Your task to perform on an android device: Go to accessibility settings Image 0: 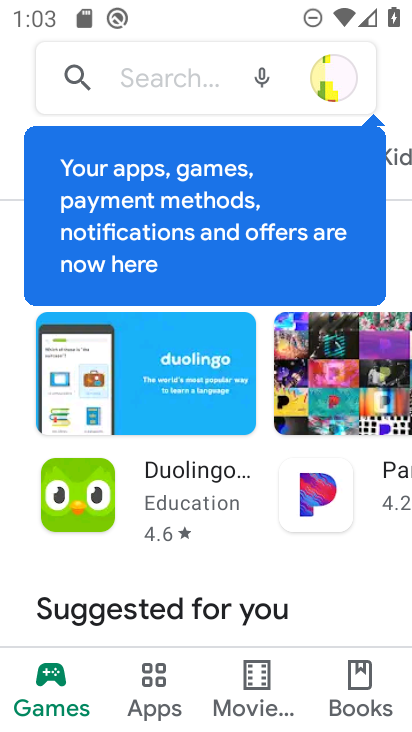
Step 0: drag from (251, 598) to (323, 306)
Your task to perform on an android device: Go to accessibility settings Image 1: 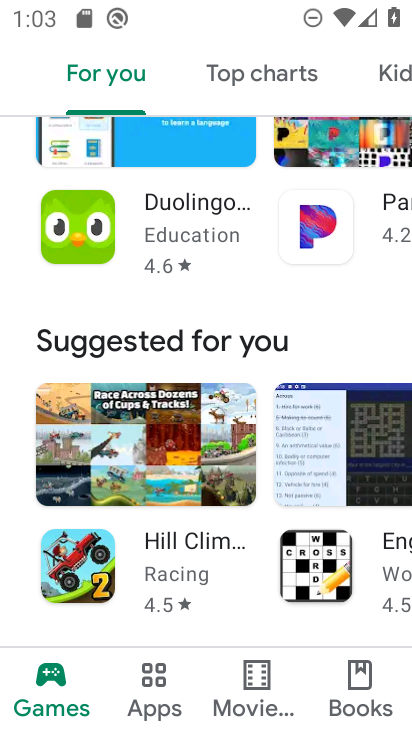
Step 1: drag from (229, 622) to (298, 162)
Your task to perform on an android device: Go to accessibility settings Image 2: 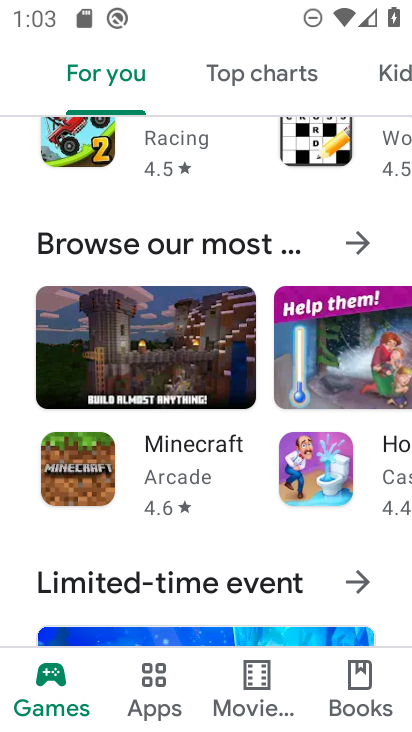
Step 2: press home button
Your task to perform on an android device: Go to accessibility settings Image 3: 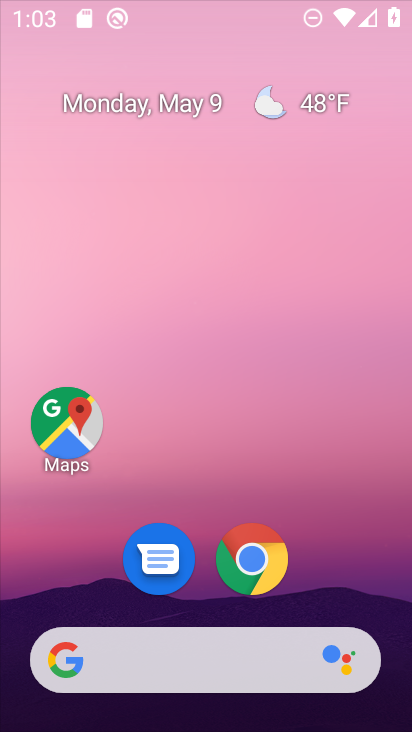
Step 3: drag from (227, 603) to (305, 183)
Your task to perform on an android device: Go to accessibility settings Image 4: 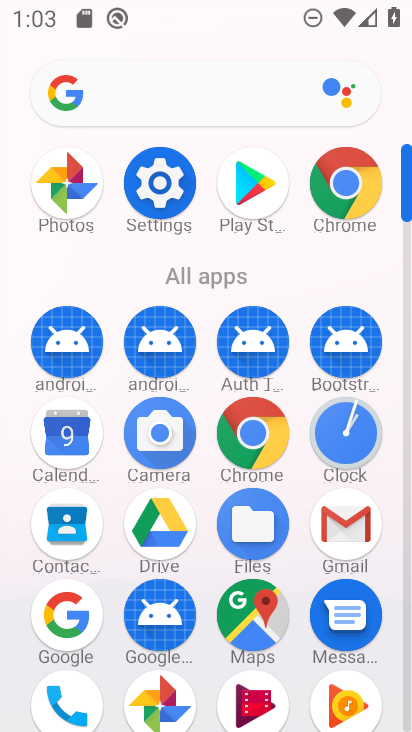
Step 4: click (177, 190)
Your task to perform on an android device: Go to accessibility settings Image 5: 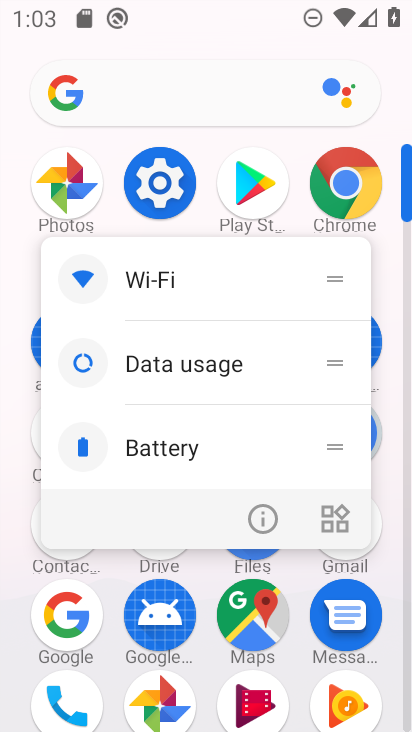
Step 5: click (254, 517)
Your task to perform on an android device: Go to accessibility settings Image 6: 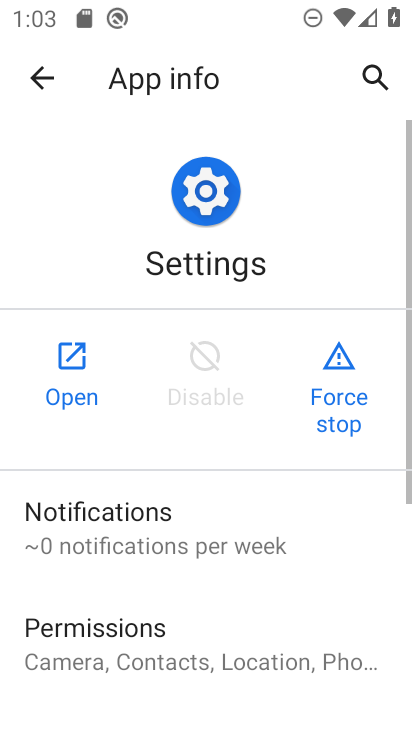
Step 6: click (70, 339)
Your task to perform on an android device: Go to accessibility settings Image 7: 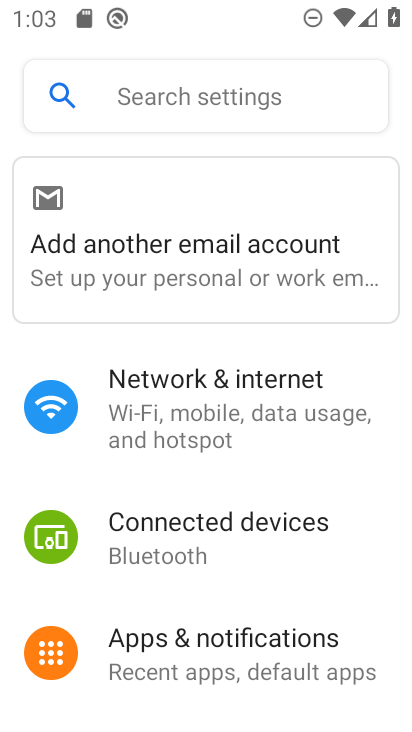
Step 7: drag from (247, 632) to (346, 58)
Your task to perform on an android device: Go to accessibility settings Image 8: 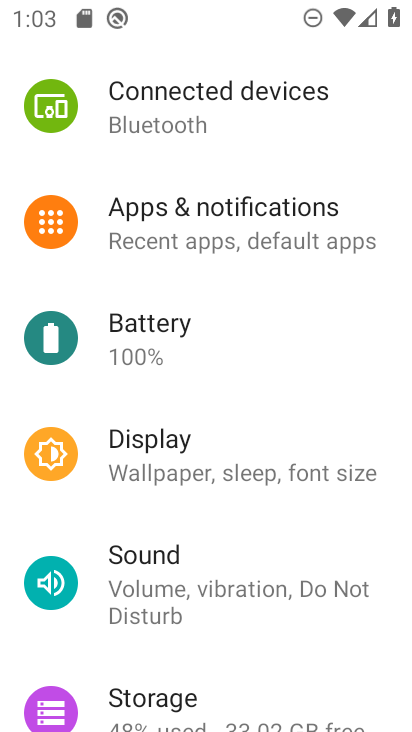
Step 8: drag from (227, 650) to (293, 135)
Your task to perform on an android device: Go to accessibility settings Image 9: 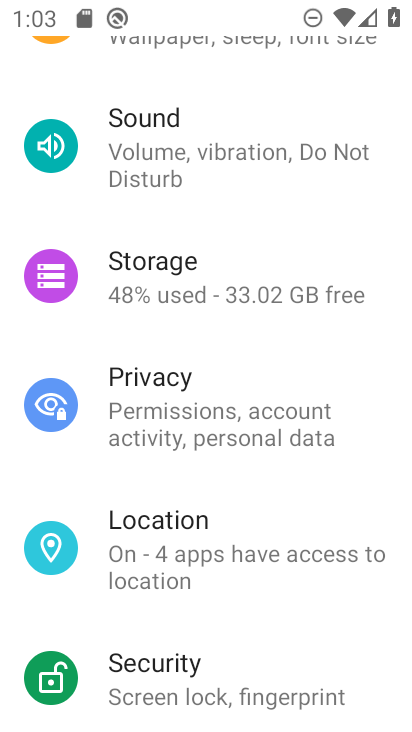
Step 9: drag from (190, 620) to (246, 180)
Your task to perform on an android device: Go to accessibility settings Image 10: 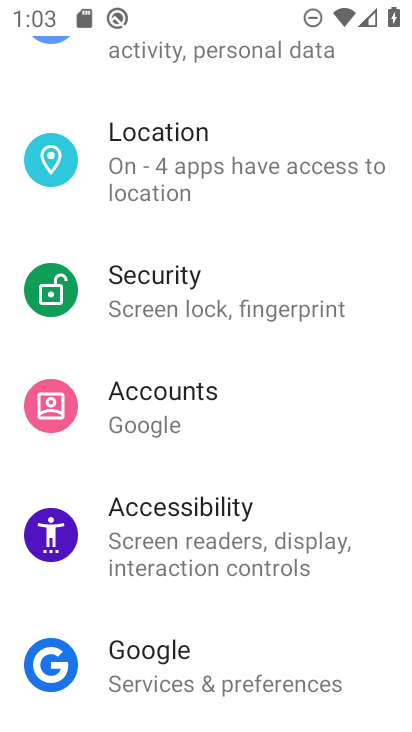
Step 10: drag from (222, 532) to (273, 280)
Your task to perform on an android device: Go to accessibility settings Image 11: 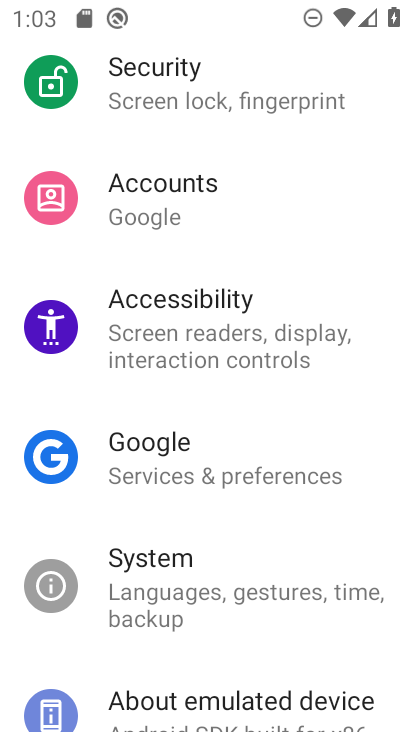
Step 11: click (222, 299)
Your task to perform on an android device: Go to accessibility settings Image 12: 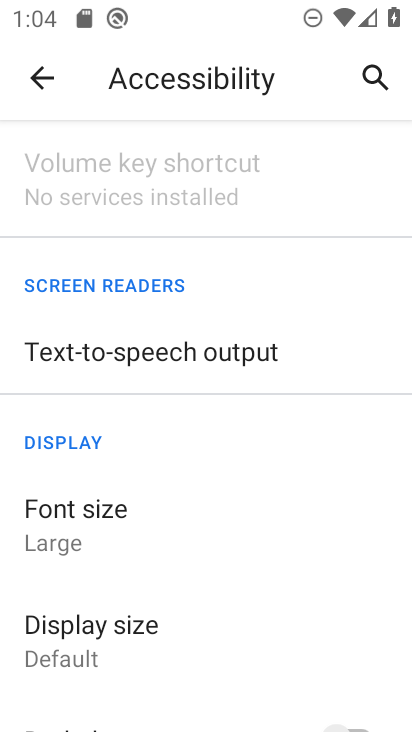
Step 12: task complete